Your task to perform on an android device: open app "ColorNote Notepad Notes" (install if not already installed) Image 0: 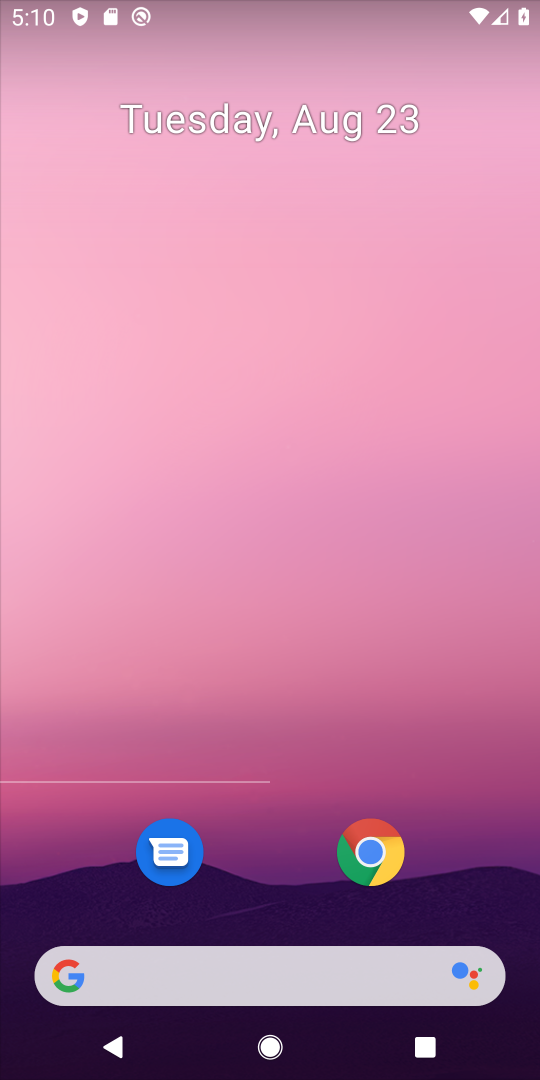
Step 0: press home button
Your task to perform on an android device: open app "ColorNote Notepad Notes" (install if not already installed) Image 1: 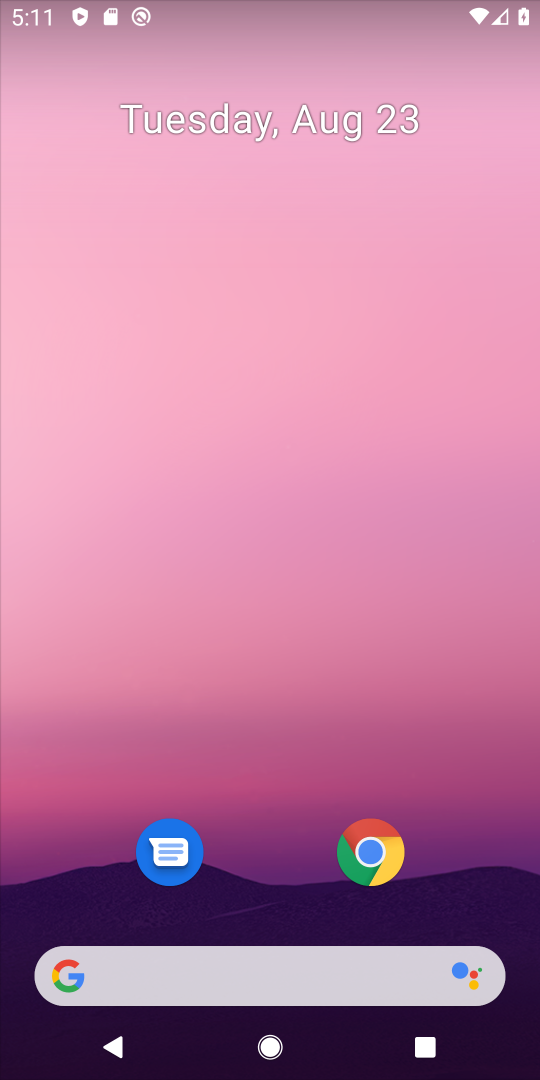
Step 1: drag from (257, 983) to (348, 102)
Your task to perform on an android device: open app "ColorNote Notepad Notes" (install if not already installed) Image 2: 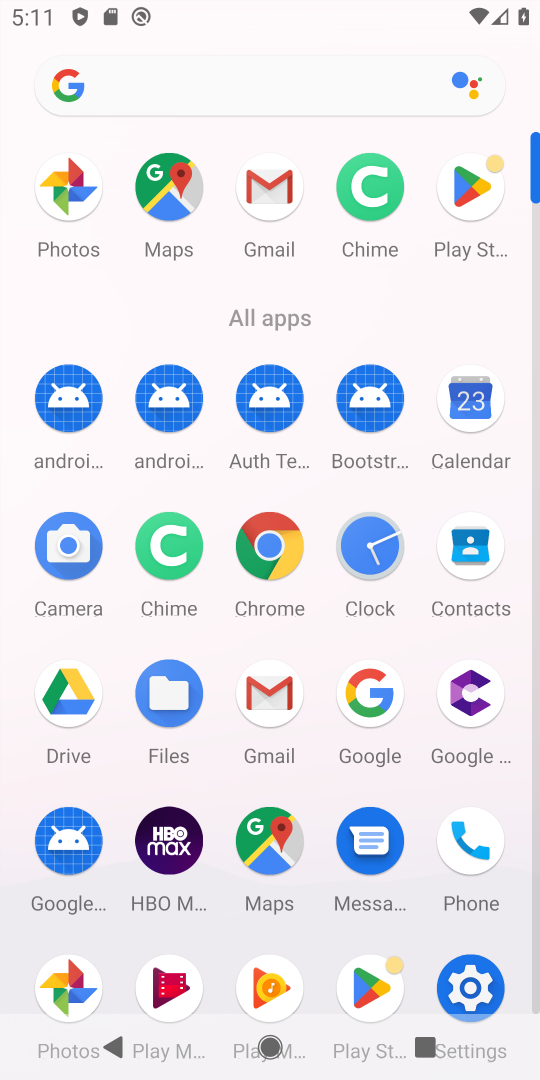
Step 2: click (473, 190)
Your task to perform on an android device: open app "ColorNote Notepad Notes" (install if not already installed) Image 3: 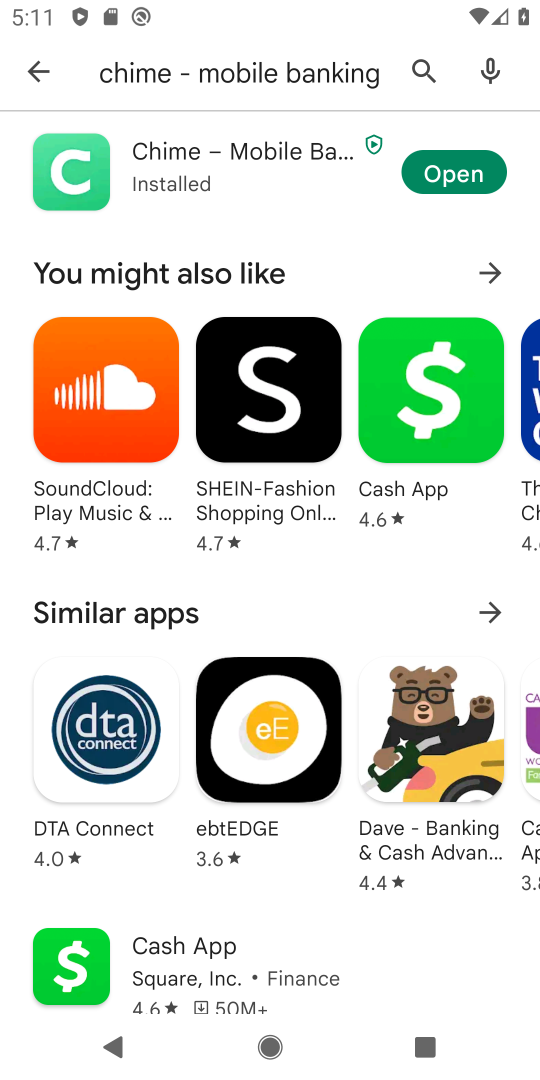
Step 3: press back button
Your task to perform on an android device: open app "ColorNote Notepad Notes" (install if not already installed) Image 4: 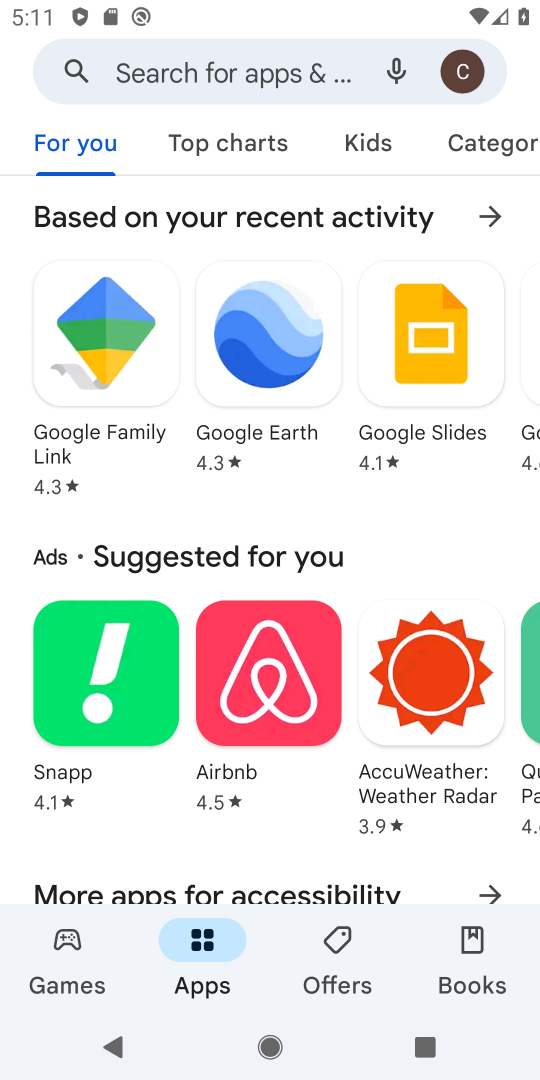
Step 4: click (312, 79)
Your task to perform on an android device: open app "ColorNote Notepad Notes" (install if not already installed) Image 5: 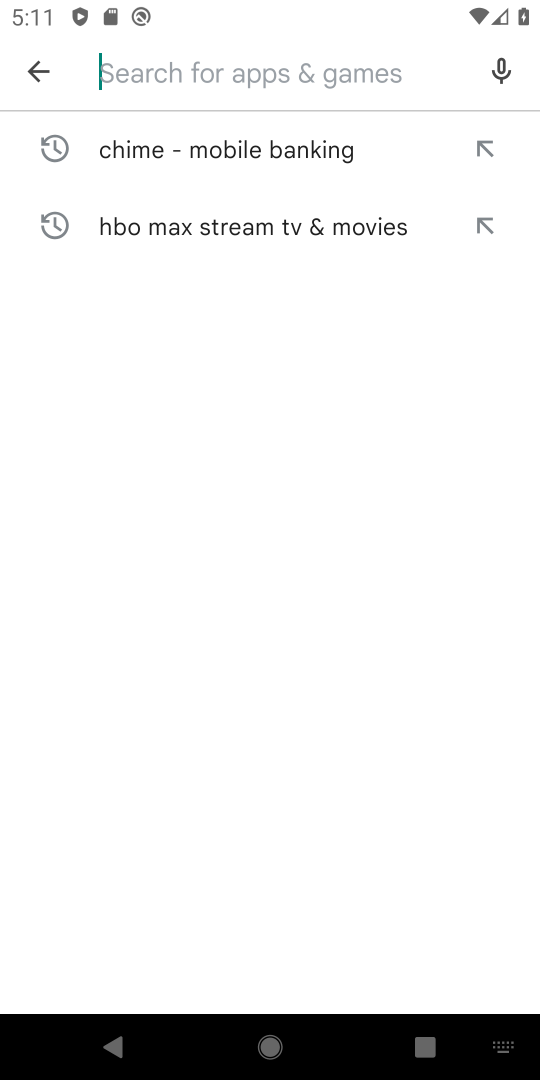
Step 5: type "ColorNote Notepad Notes"
Your task to perform on an android device: open app "ColorNote Notepad Notes" (install if not already installed) Image 6: 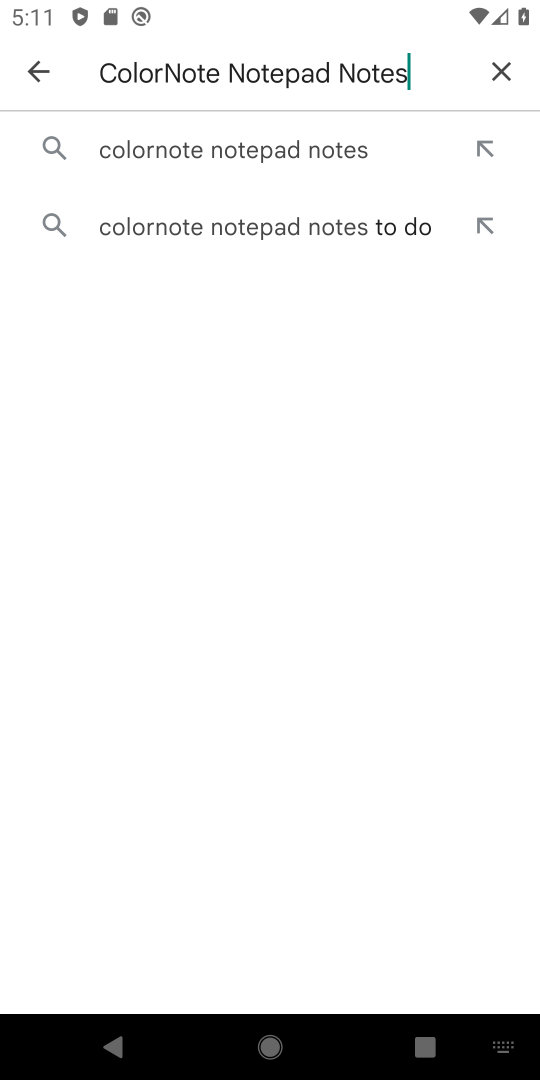
Step 6: click (316, 154)
Your task to perform on an android device: open app "ColorNote Notepad Notes" (install if not already installed) Image 7: 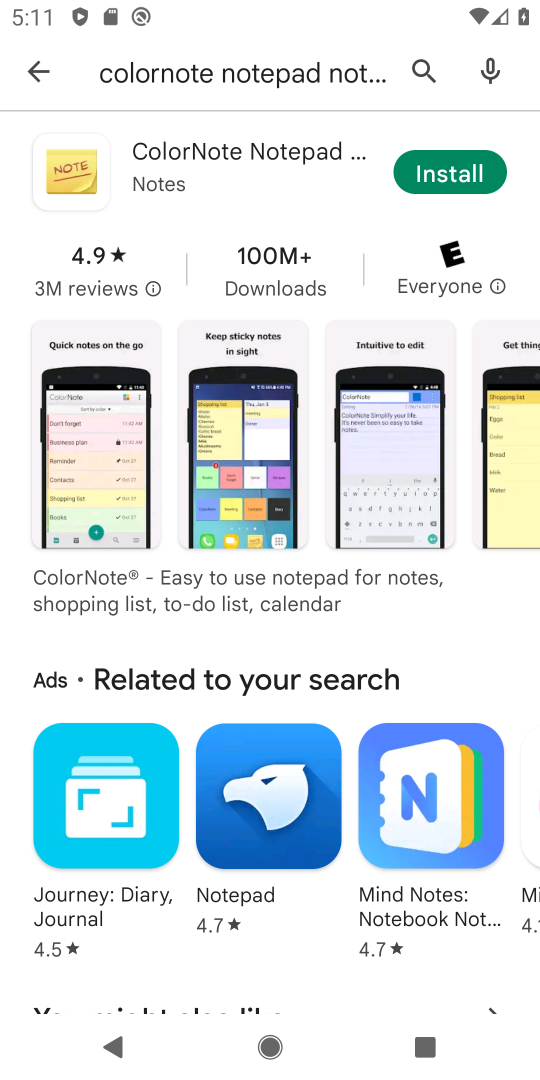
Step 7: click (431, 174)
Your task to perform on an android device: open app "ColorNote Notepad Notes" (install if not already installed) Image 8: 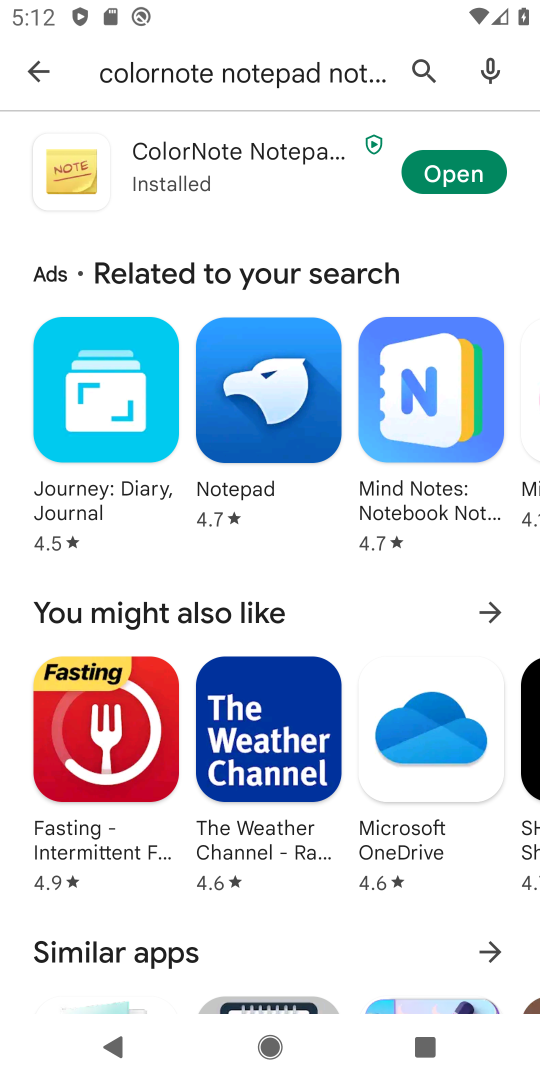
Step 8: click (448, 182)
Your task to perform on an android device: open app "ColorNote Notepad Notes" (install if not already installed) Image 9: 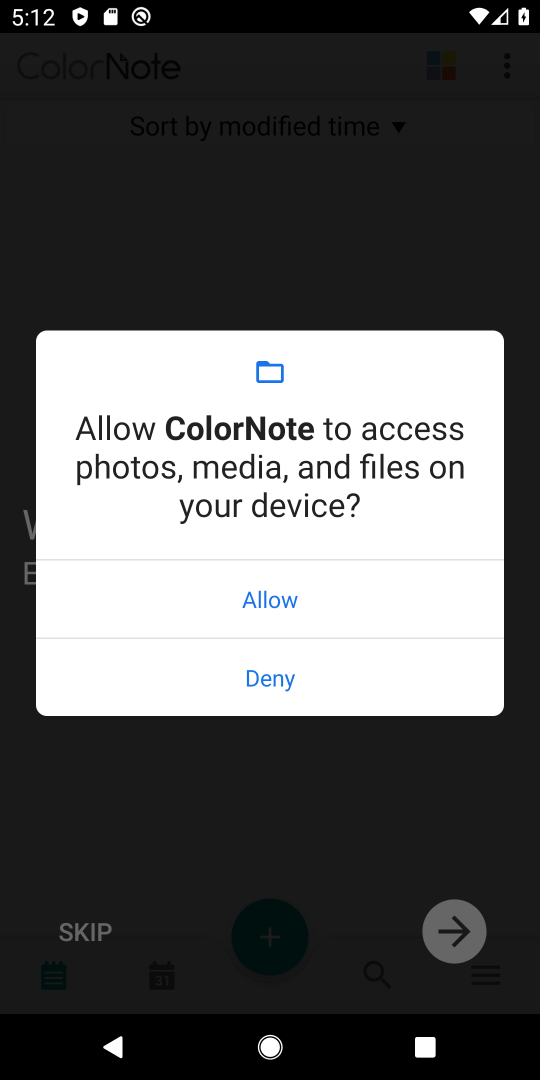
Step 9: click (274, 608)
Your task to perform on an android device: open app "ColorNote Notepad Notes" (install if not already installed) Image 10: 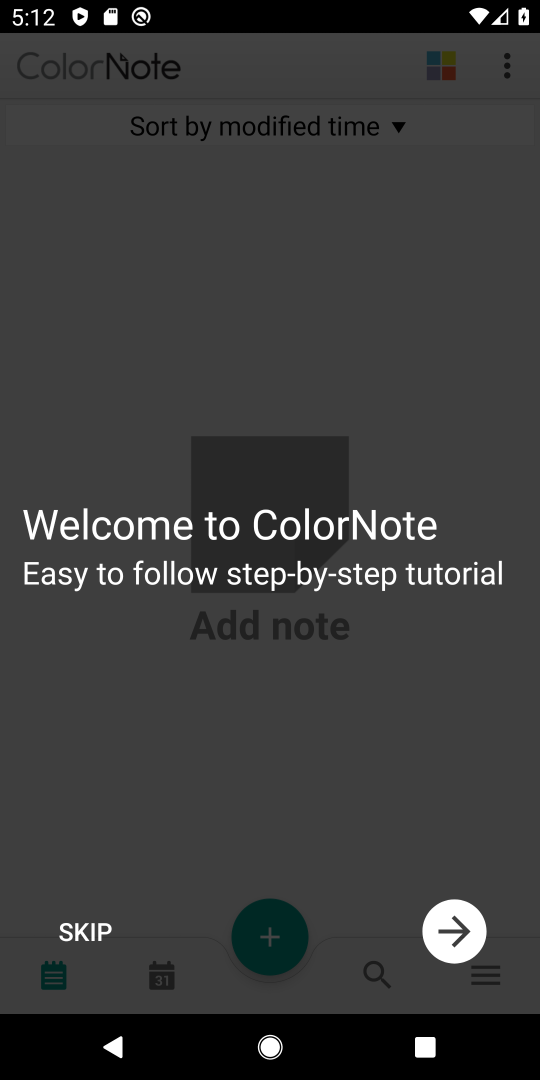
Step 10: click (65, 939)
Your task to perform on an android device: open app "ColorNote Notepad Notes" (install if not already installed) Image 11: 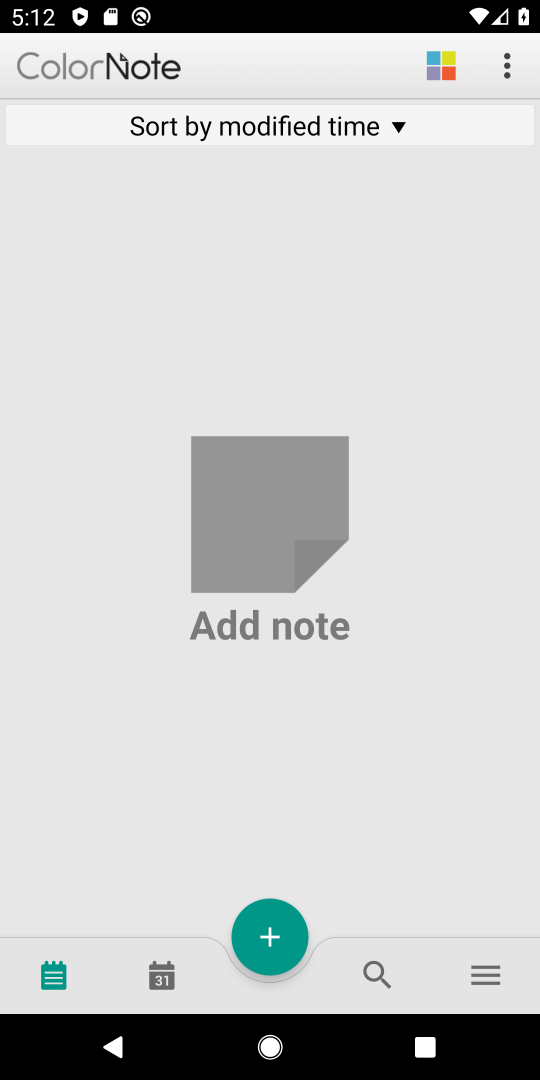
Step 11: task complete